Your task to perform on an android device: What's the price of the EGO 14-in 56-Volt Brushless Cordless Chainsaw? Image 0: 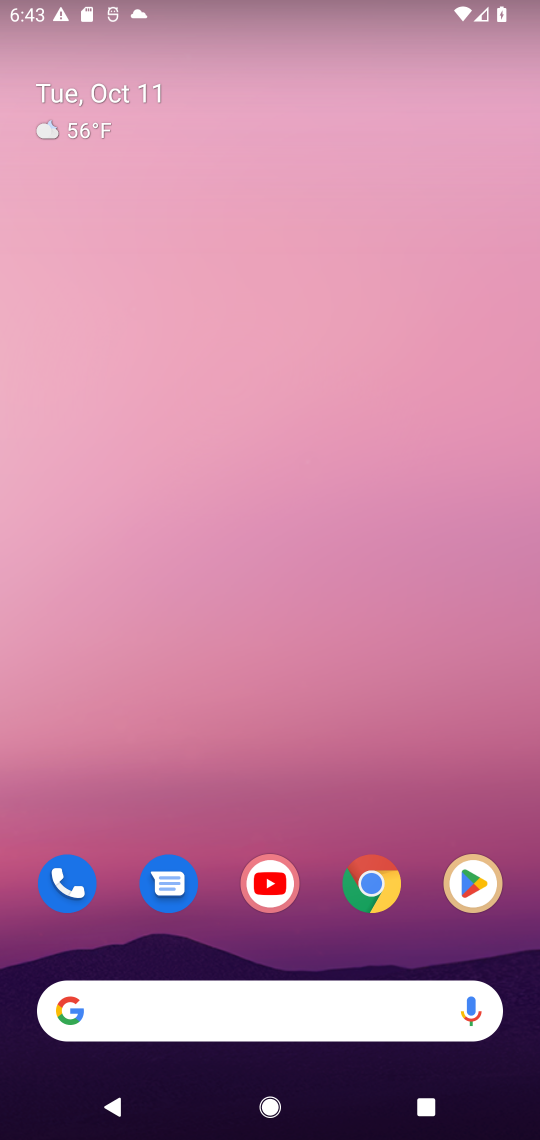
Step 0: drag from (328, 433) to (333, 208)
Your task to perform on an android device: What's the price of the EGO 14-in 56-Volt Brushless Cordless Chainsaw? Image 1: 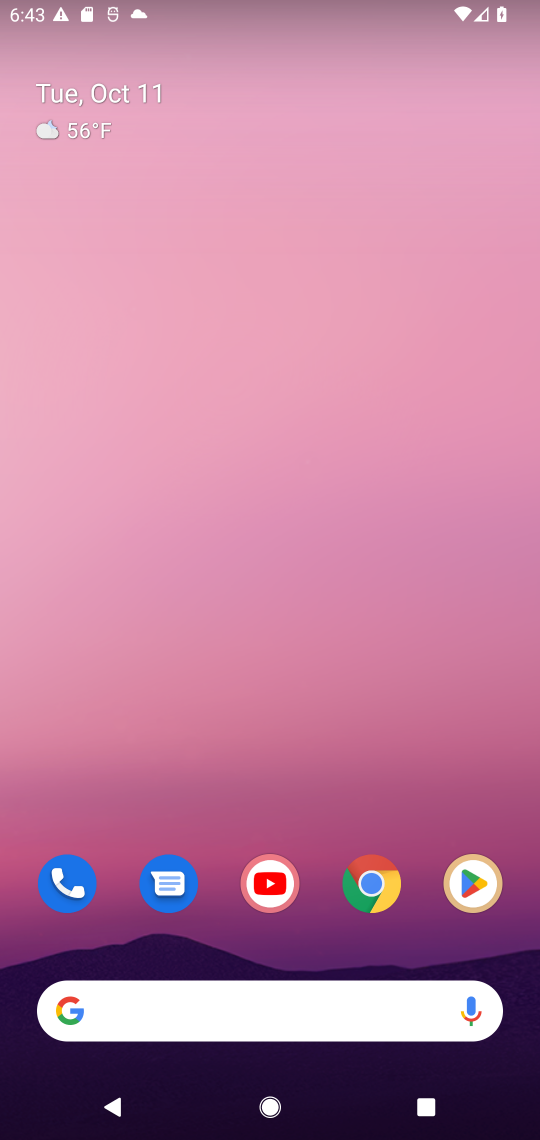
Step 1: drag from (308, 295) to (323, 148)
Your task to perform on an android device: What's the price of the EGO 14-in 56-Volt Brushless Cordless Chainsaw? Image 2: 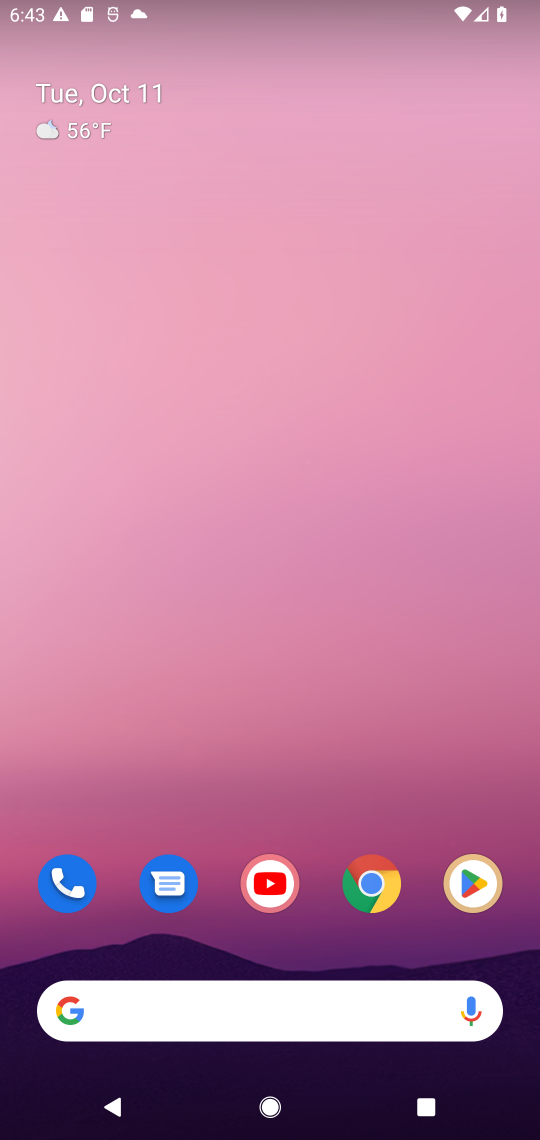
Step 2: drag from (341, 944) to (311, 123)
Your task to perform on an android device: What's the price of the EGO 14-in 56-Volt Brushless Cordless Chainsaw? Image 3: 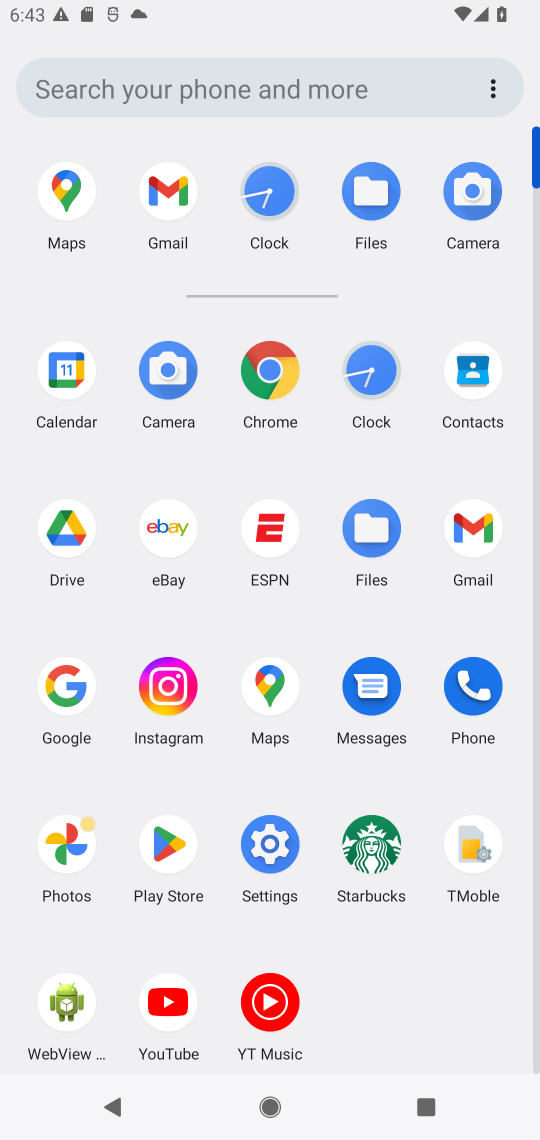
Step 3: click (267, 376)
Your task to perform on an android device: What's the price of the EGO 14-in 56-Volt Brushless Cordless Chainsaw? Image 4: 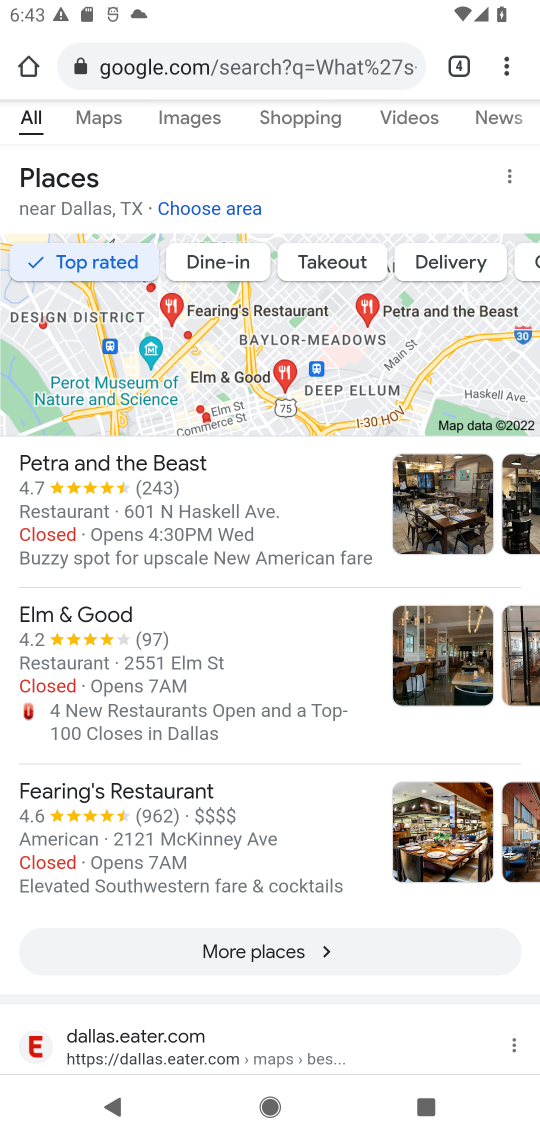
Step 4: click (249, 63)
Your task to perform on an android device: What's the price of the EGO 14-in 56-Volt Brushless Cordless Chainsaw? Image 5: 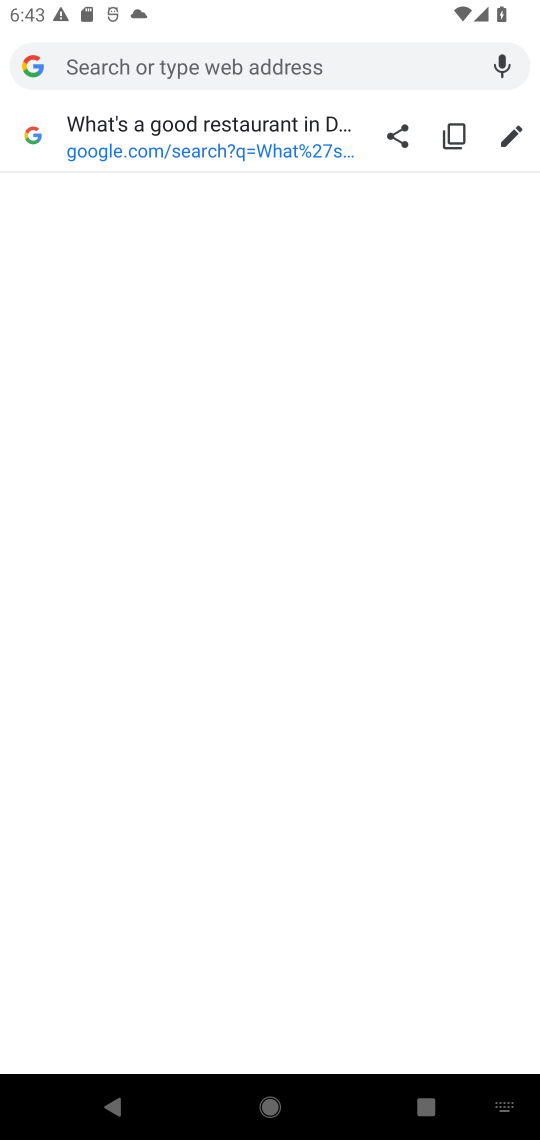
Step 5: type "What's the price of the EGO 14-in 56-Volt Brushless Cordless Chainsaw"
Your task to perform on an android device: What's the price of the EGO 14-in 56-Volt Brushless Cordless Chainsaw? Image 6: 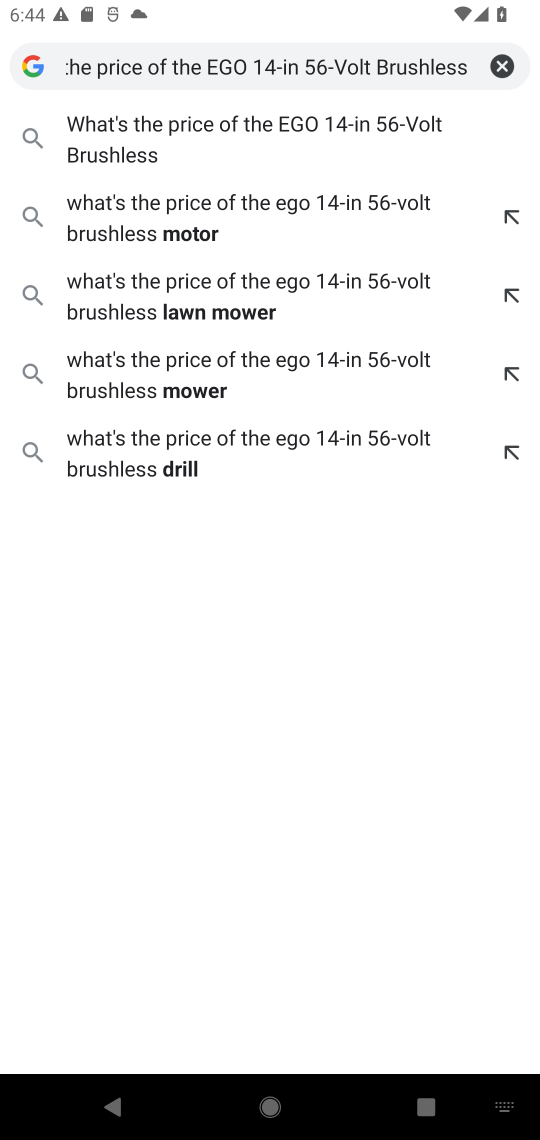
Step 6: type "Cordless Chainsaw?"
Your task to perform on an android device: What's the price of the EGO 14-in 56-Volt Brushless Cordless Chainsaw? Image 7: 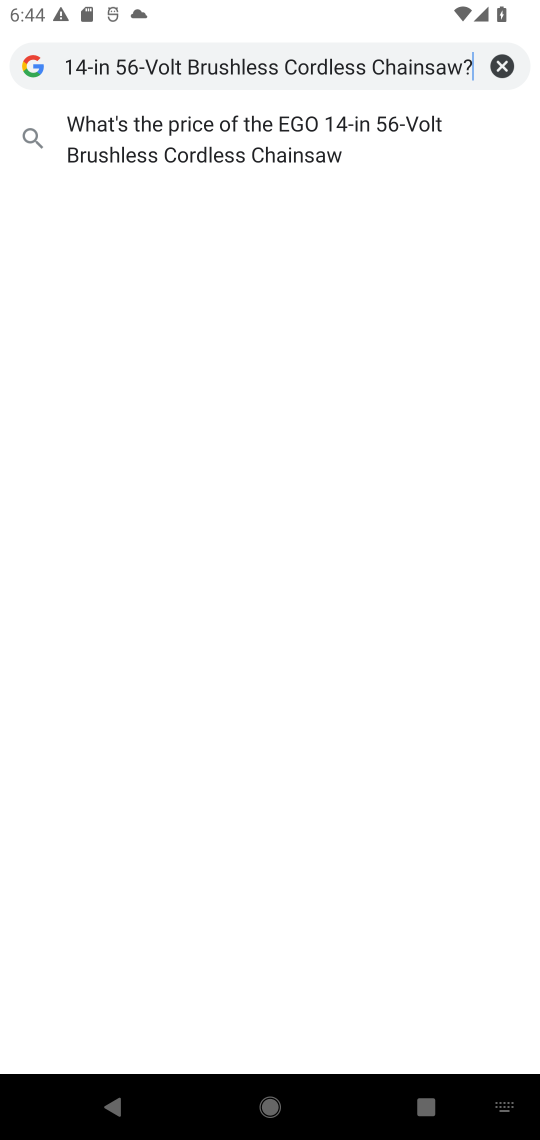
Step 7: press enter
Your task to perform on an android device: What's the price of the EGO 14-in 56-Volt Brushless Cordless Chainsaw? Image 8: 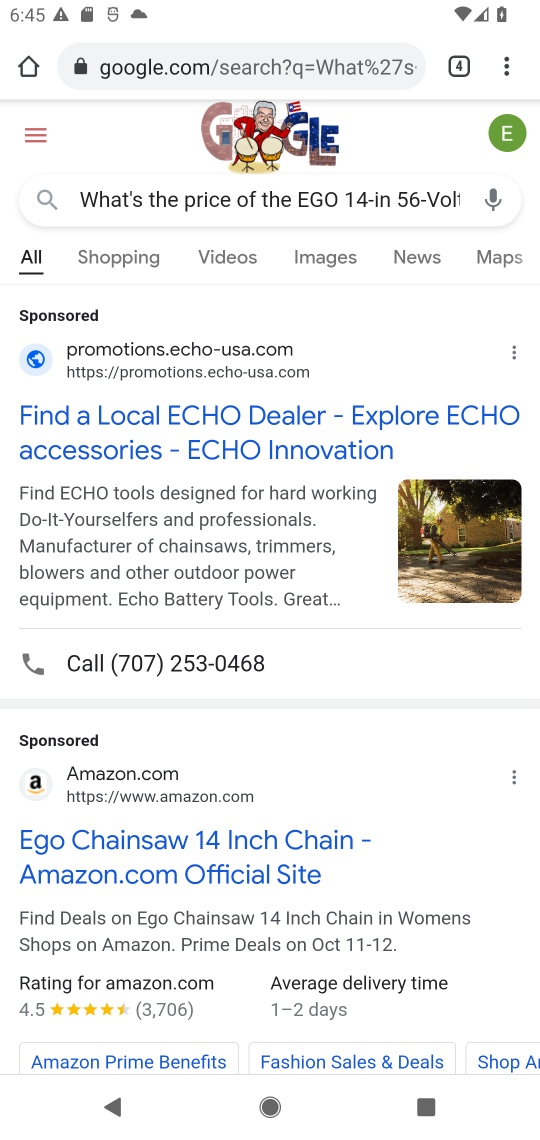
Step 8: task complete